Your task to perform on an android device: turn on javascript in the chrome app Image 0: 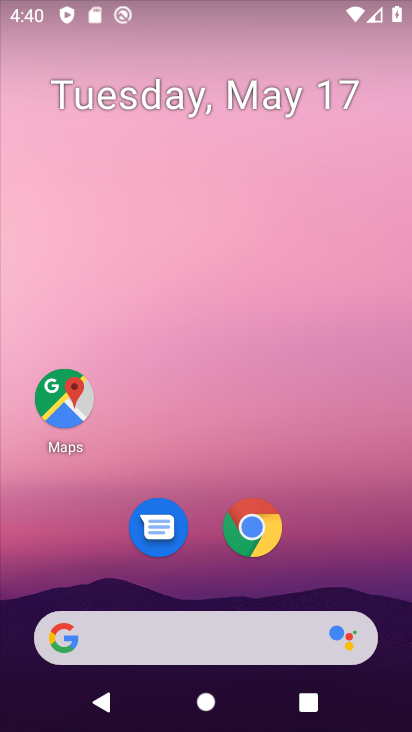
Step 0: drag from (337, 491) to (286, 7)
Your task to perform on an android device: turn on javascript in the chrome app Image 1: 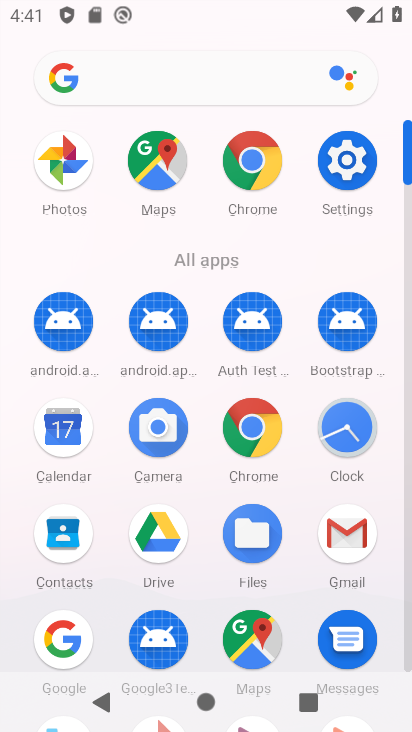
Step 1: drag from (2, 545) to (8, 254)
Your task to perform on an android device: turn on javascript in the chrome app Image 2: 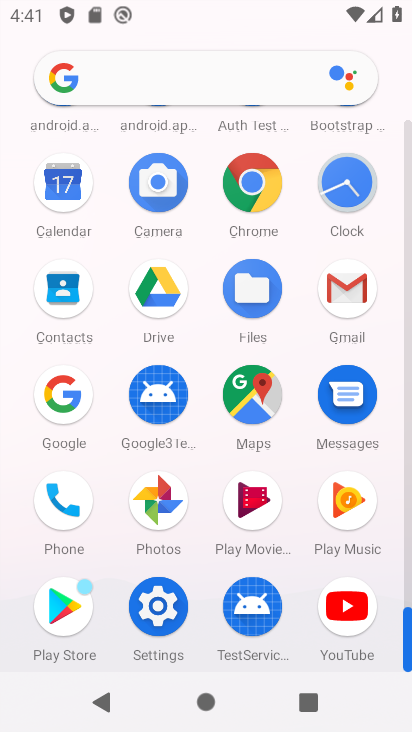
Step 2: click (249, 181)
Your task to perform on an android device: turn on javascript in the chrome app Image 3: 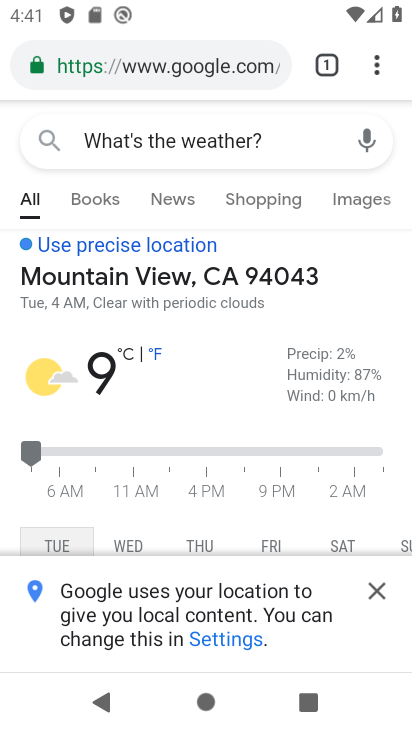
Step 3: drag from (378, 70) to (218, 583)
Your task to perform on an android device: turn on javascript in the chrome app Image 4: 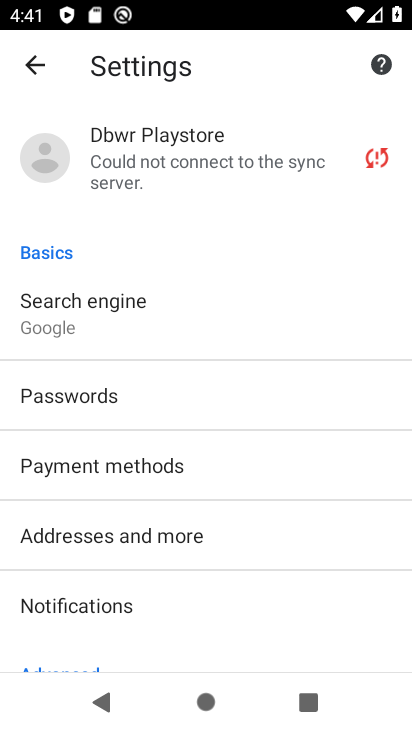
Step 4: drag from (247, 559) to (243, 199)
Your task to perform on an android device: turn on javascript in the chrome app Image 5: 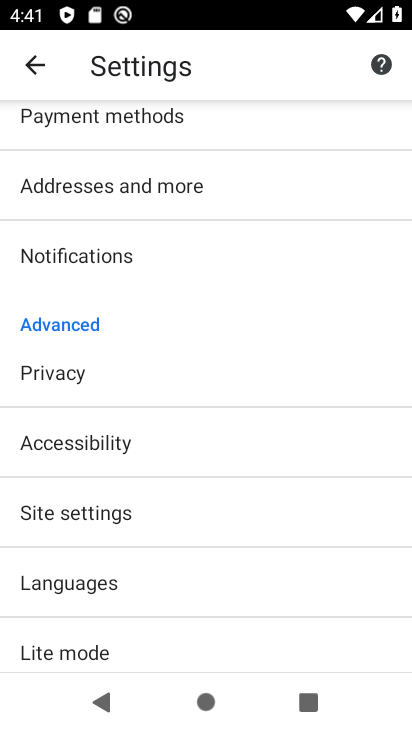
Step 5: drag from (195, 511) to (218, 173)
Your task to perform on an android device: turn on javascript in the chrome app Image 6: 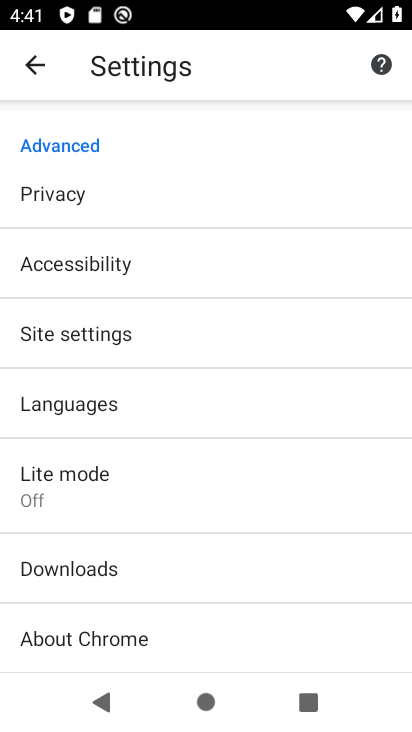
Step 6: click (132, 345)
Your task to perform on an android device: turn on javascript in the chrome app Image 7: 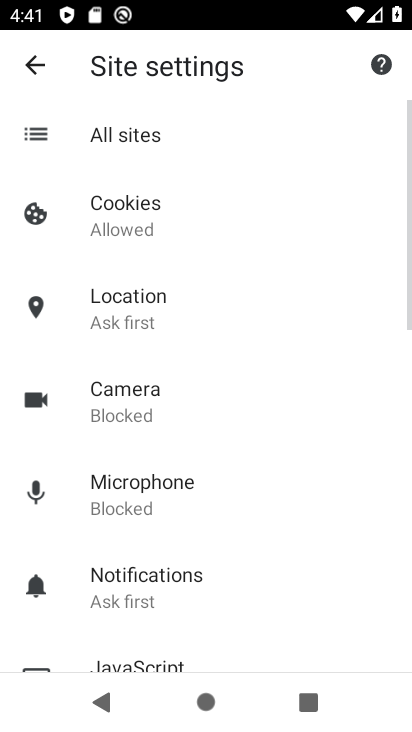
Step 7: drag from (226, 545) to (184, 123)
Your task to perform on an android device: turn on javascript in the chrome app Image 8: 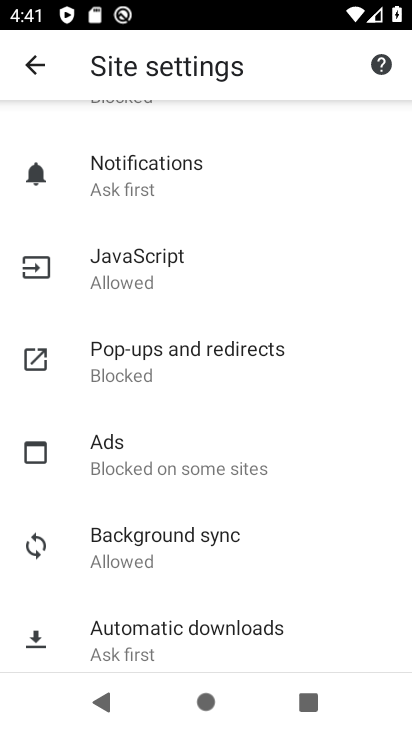
Step 8: drag from (211, 463) to (225, 143)
Your task to perform on an android device: turn on javascript in the chrome app Image 9: 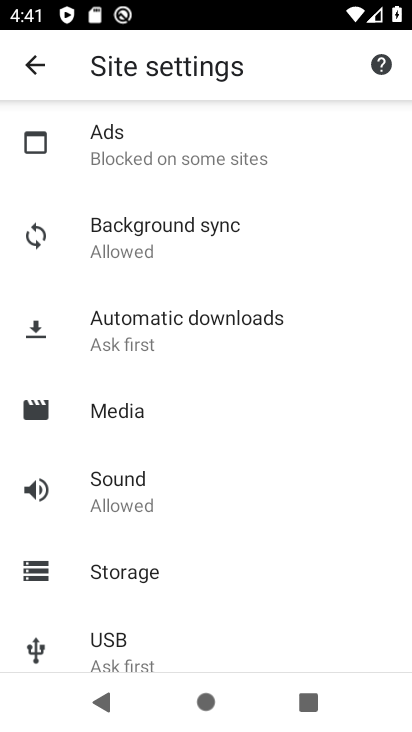
Step 9: drag from (227, 539) to (247, 139)
Your task to perform on an android device: turn on javascript in the chrome app Image 10: 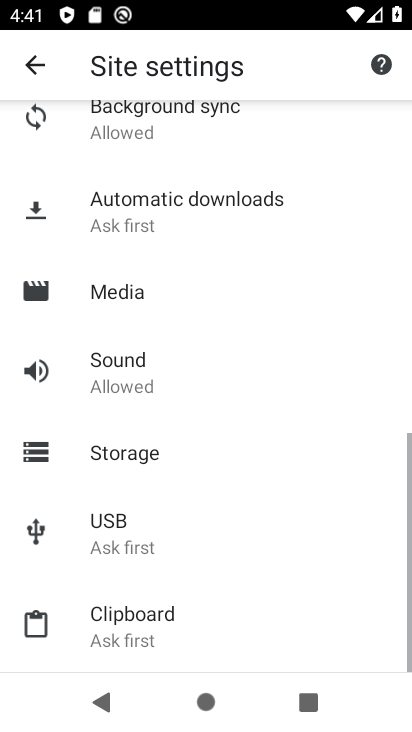
Step 10: drag from (250, 567) to (254, 224)
Your task to perform on an android device: turn on javascript in the chrome app Image 11: 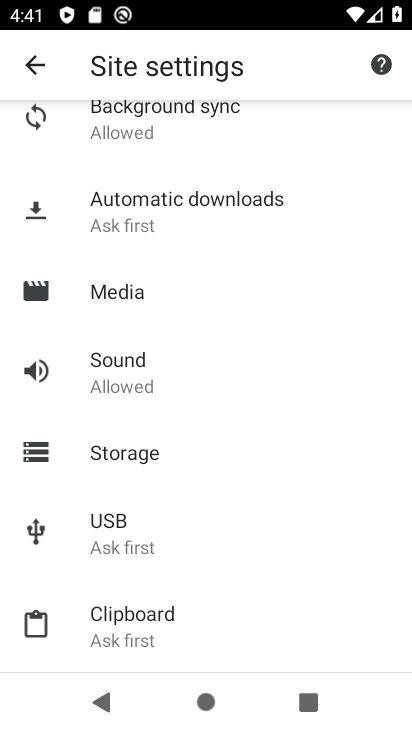
Step 11: drag from (255, 218) to (238, 624)
Your task to perform on an android device: turn on javascript in the chrome app Image 12: 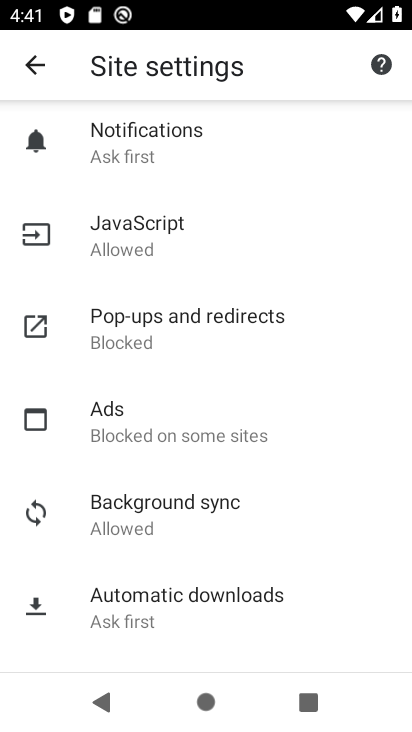
Step 12: drag from (260, 288) to (244, 606)
Your task to perform on an android device: turn on javascript in the chrome app Image 13: 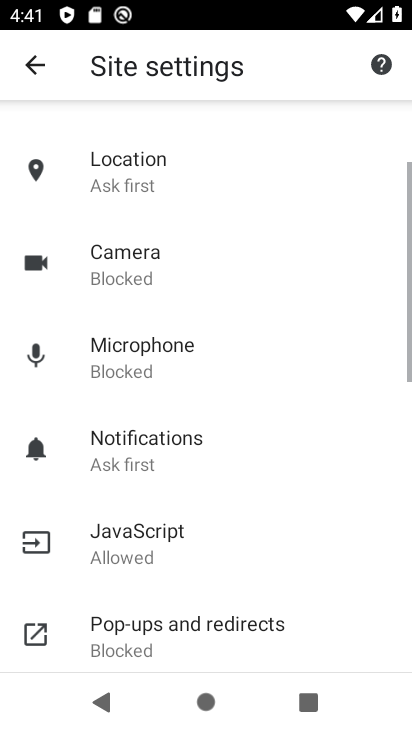
Step 13: click (230, 552)
Your task to perform on an android device: turn on javascript in the chrome app Image 14: 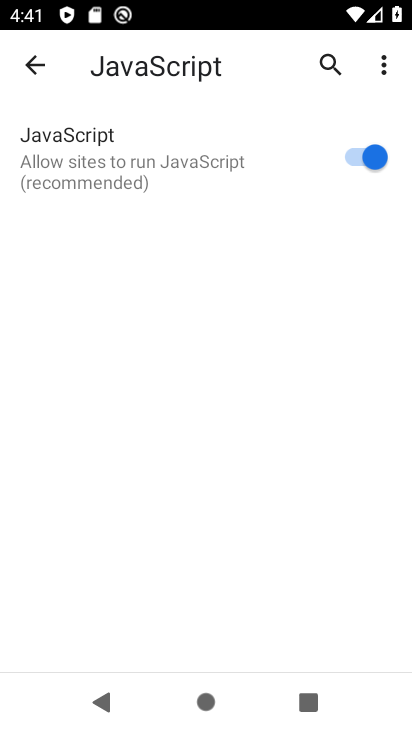
Step 14: click (42, 70)
Your task to perform on an android device: turn on javascript in the chrome app Image 15: 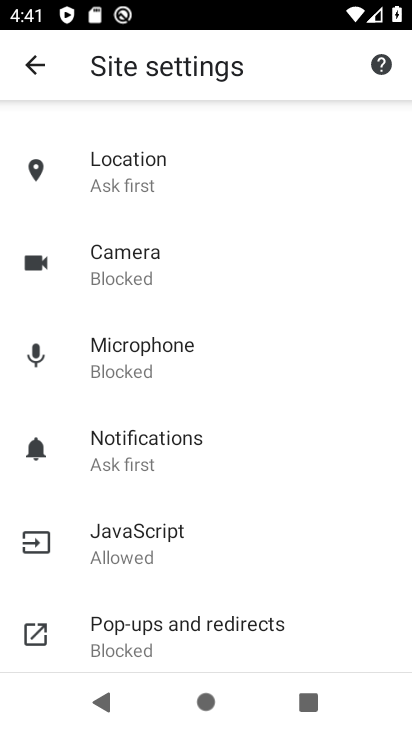
Step 15: click (143, 538)
Your task to perform on an android device: turn on javascript in the chrome app Image 16: 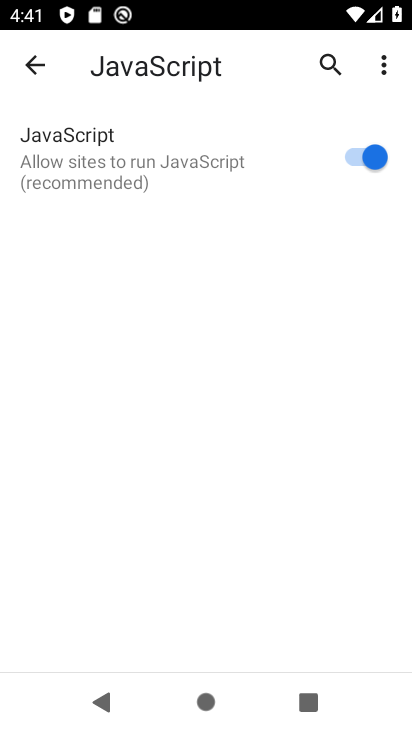
Step 16: task complete